Your task to perform on an android device: View the shopping cart on costco.com. Image 0: 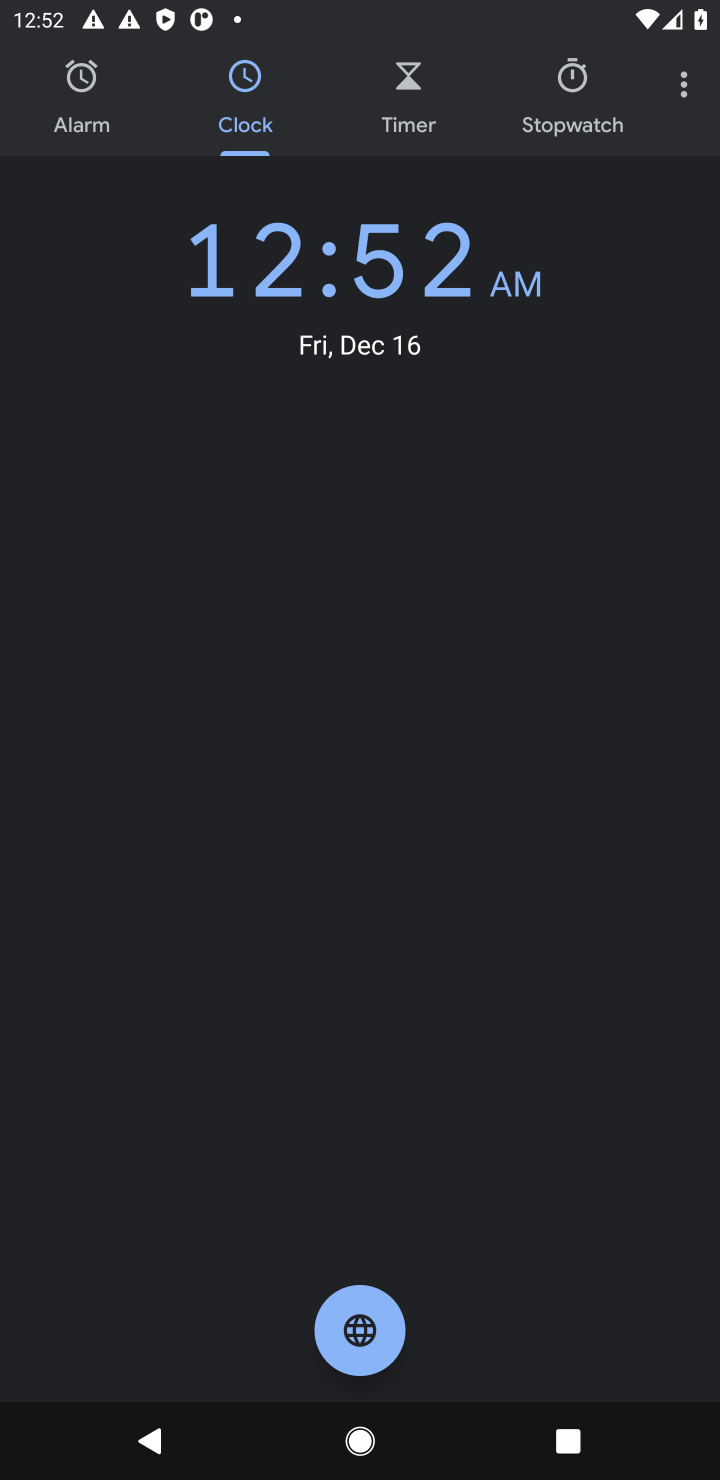
Step 0: press home button
Your task to perform on an android device: View the shopping cart on costco.com. Image 1: 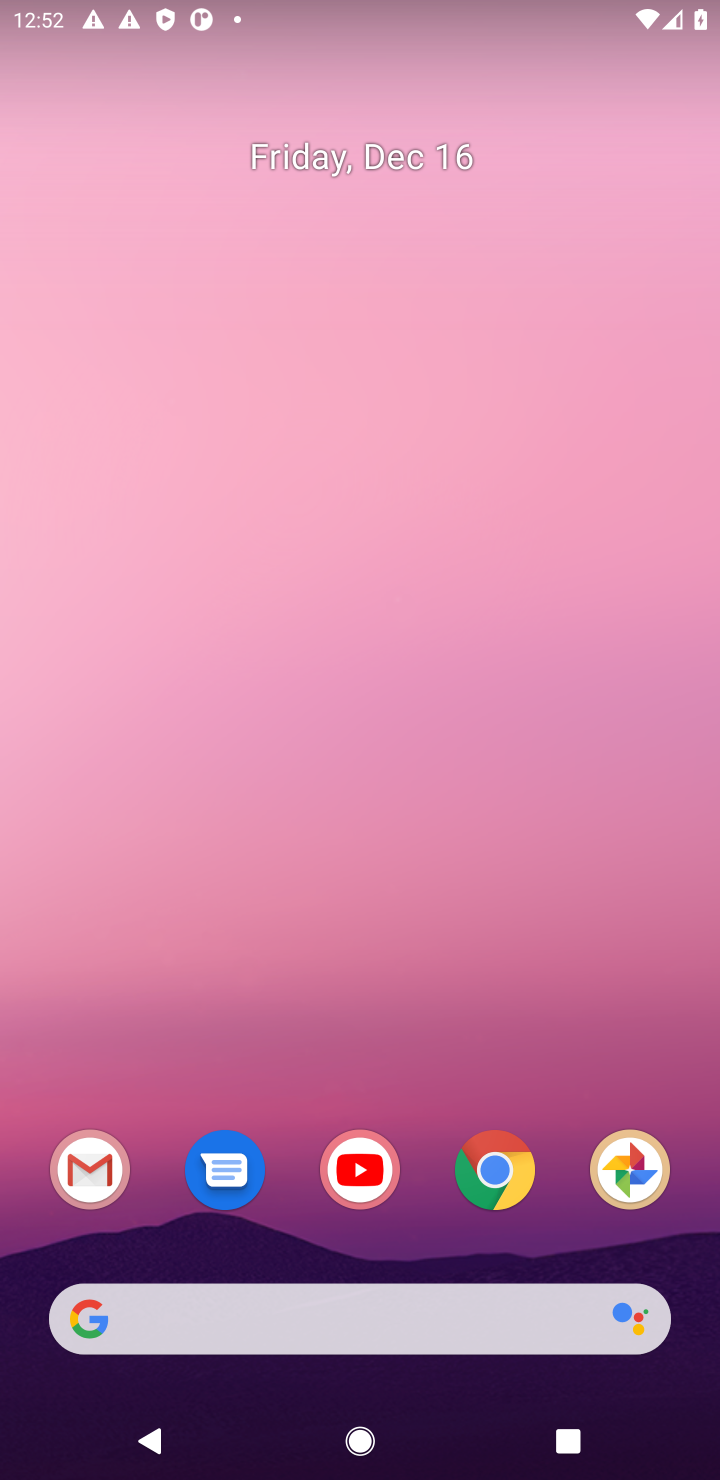
Step 1: click (490, 1167)
Your task to perform on an android device: View the shopping cart on costco.com. Image 2: 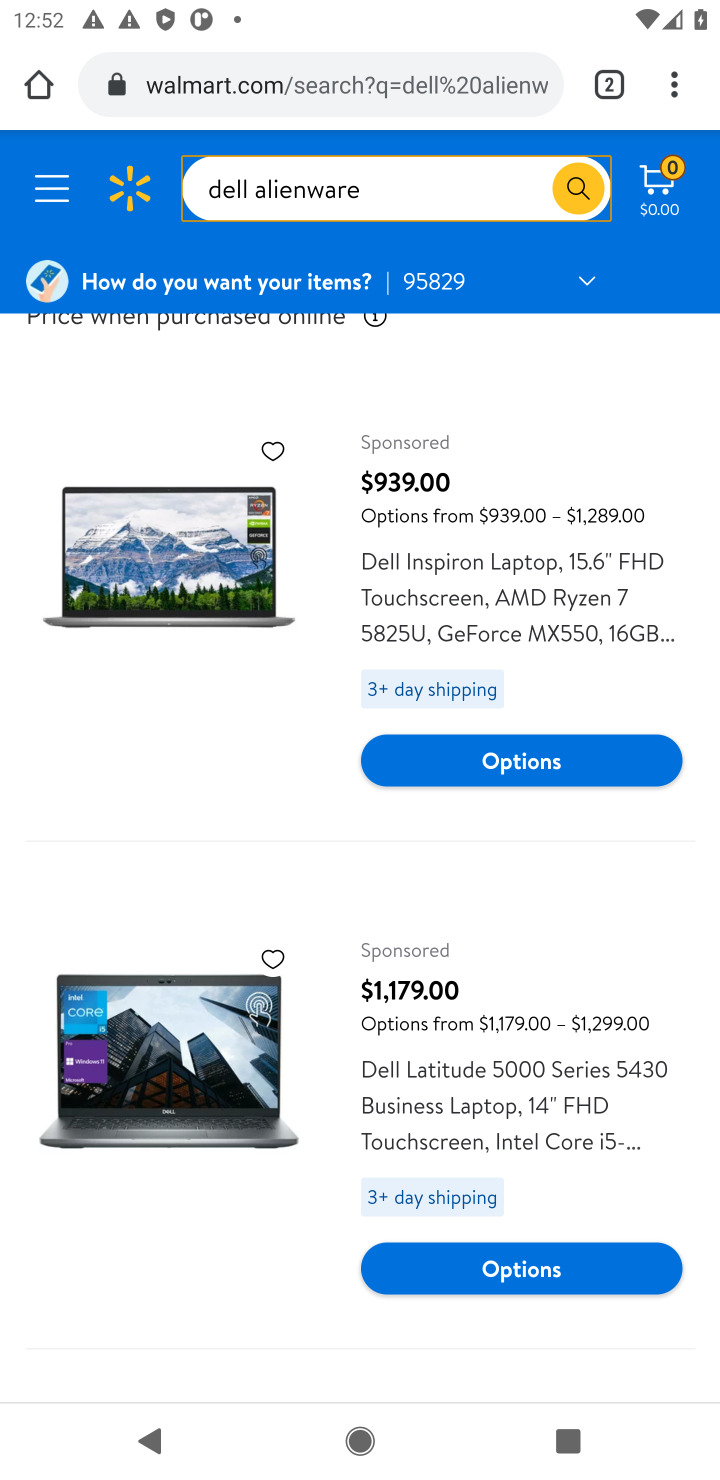
Step 2: click (280, 92)
Your task to perform on an android device: View the shopping cart on costco.com. Image 3: 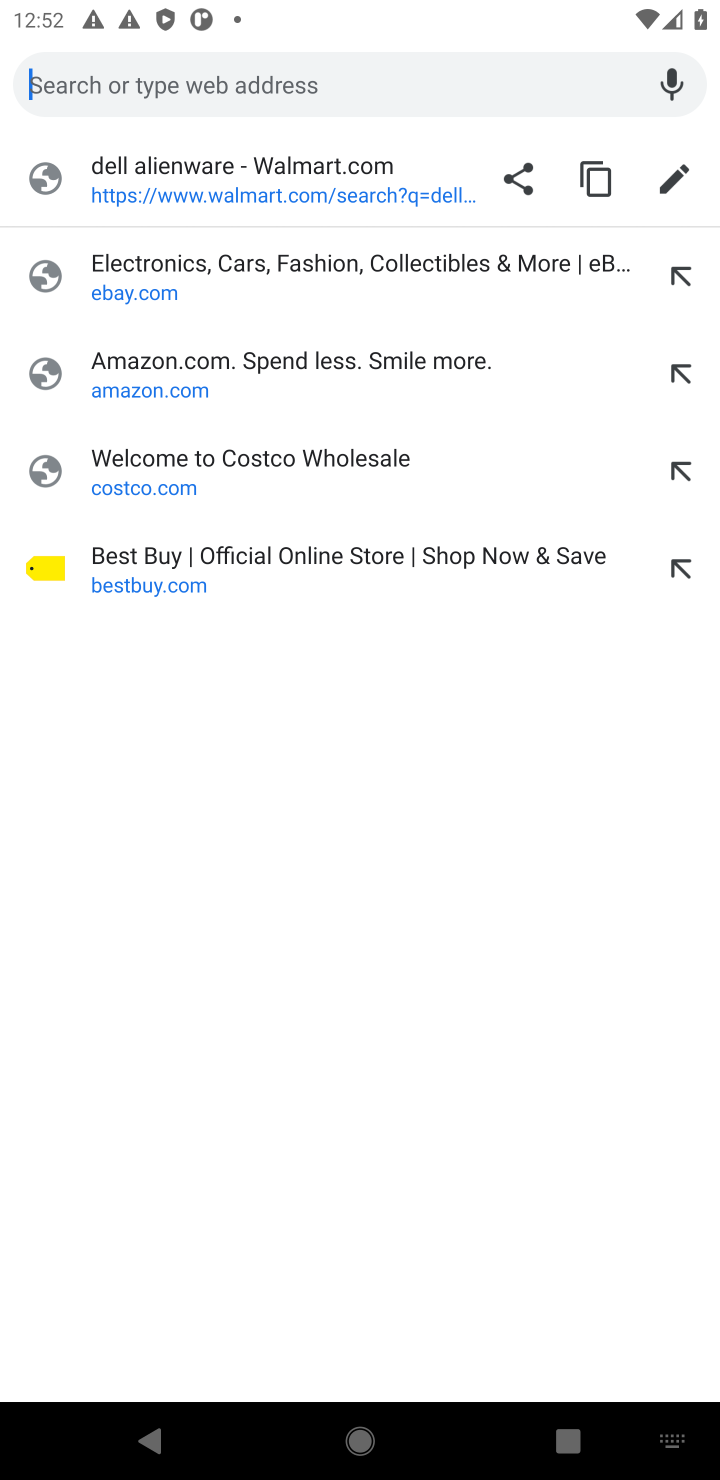
Step 3: click (134, 470)
Your task to perform on an android device: View the shopping cart on costco.com. Image 4: 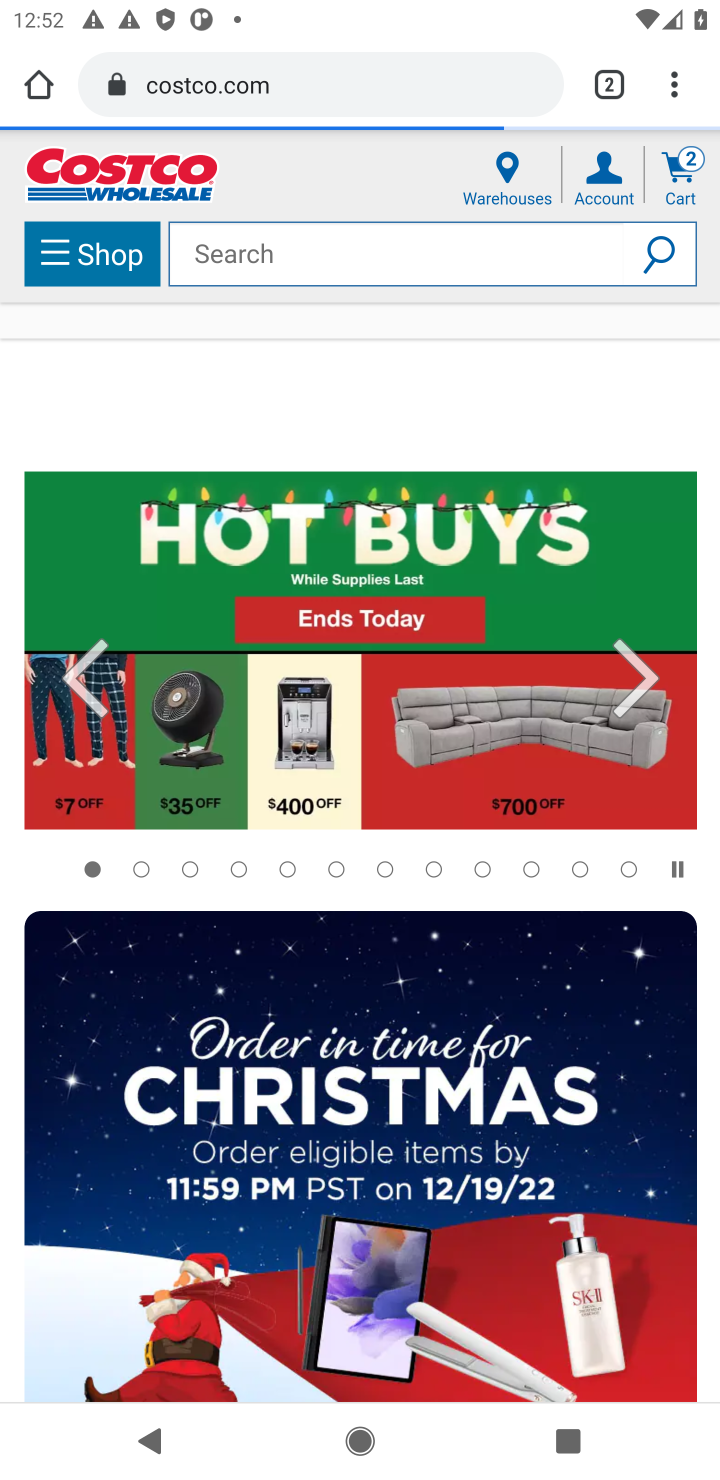
Step 4: click (688, 181)
Your task to perform on an android device: View the shopping cart on costco.com. Image 5: 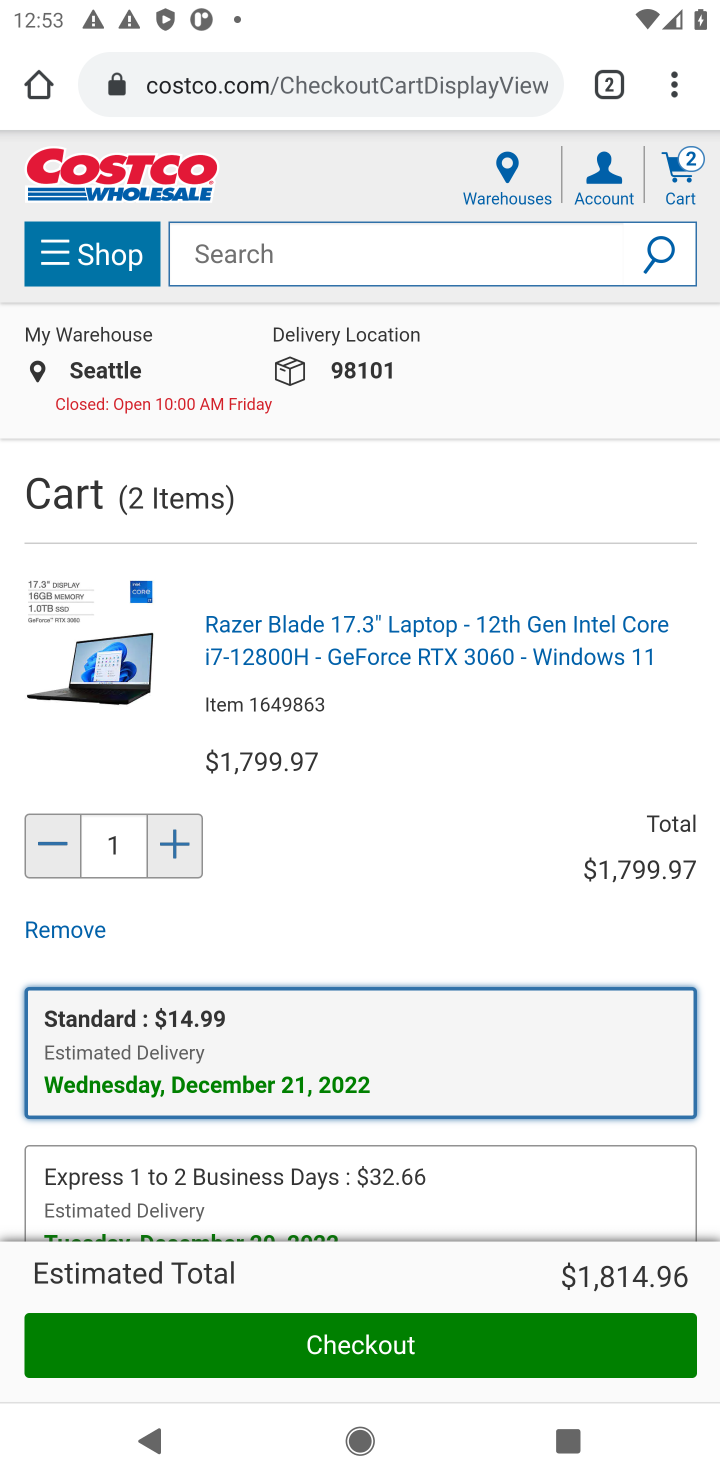
Step 5: task complete